Your task to perform on an android device: What's on my calendar tomorrow? Image 0: 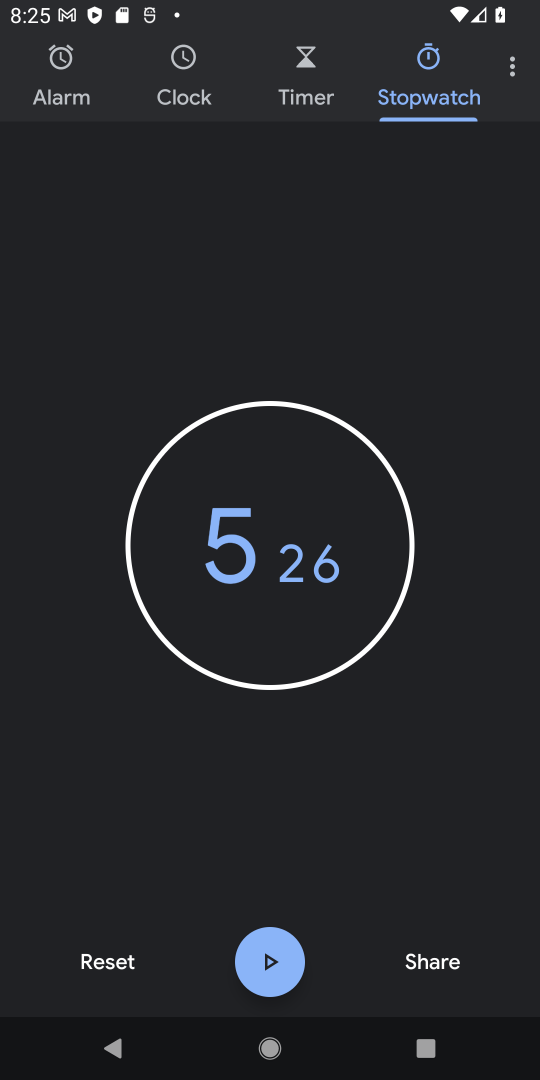
Step 0: press back button
Your task to perform on an android device: What's on my calendar tomorrow? Image 1: 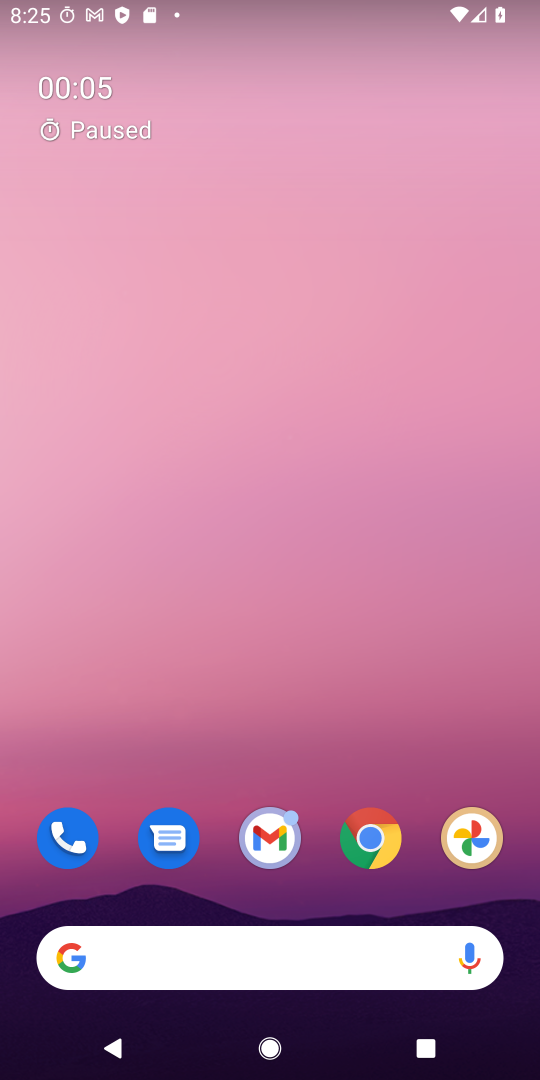
Step 1: click (209, 8)
Your task to perform on an android device: What's on my calendar tomorrow? Image 2: 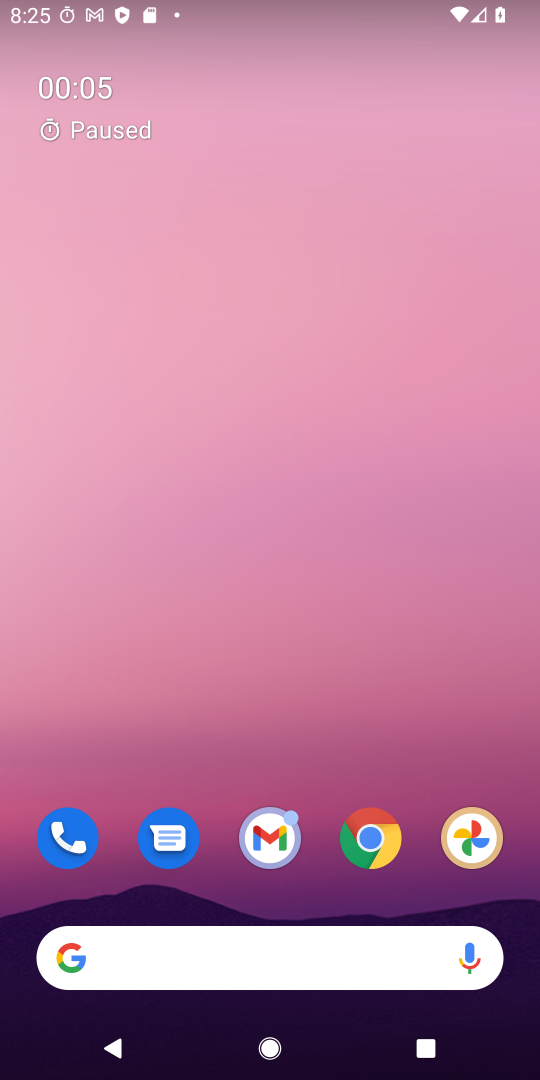
Step 2: drag from (219, 655) to (293, 3)
Your task to perform on an android device: What's on my calendar tomorrow? Image 3: 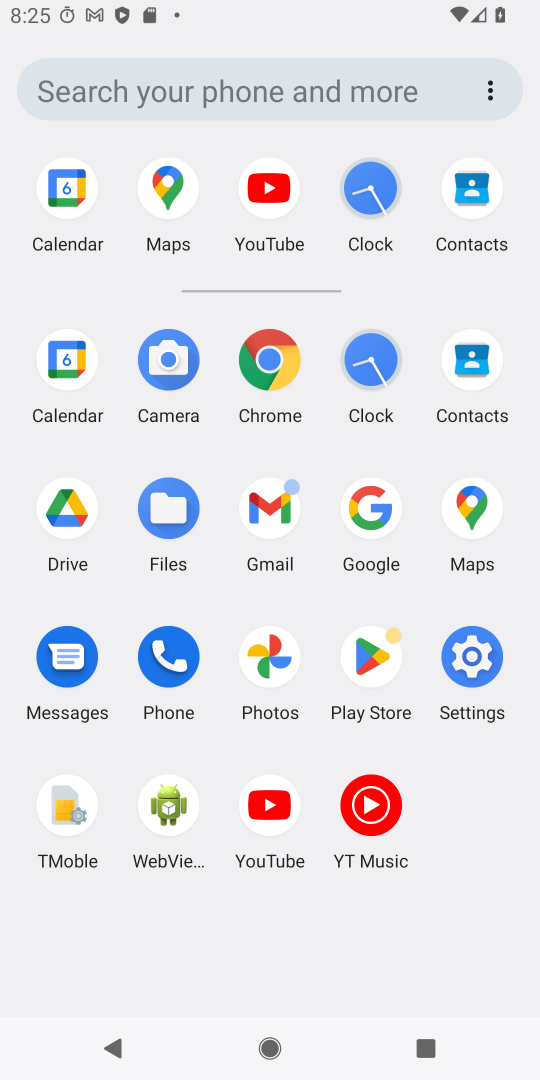
Step 3: click (49, 411)
Your task to perform on an android device: What's on my calendar tomorrow? Image 4: 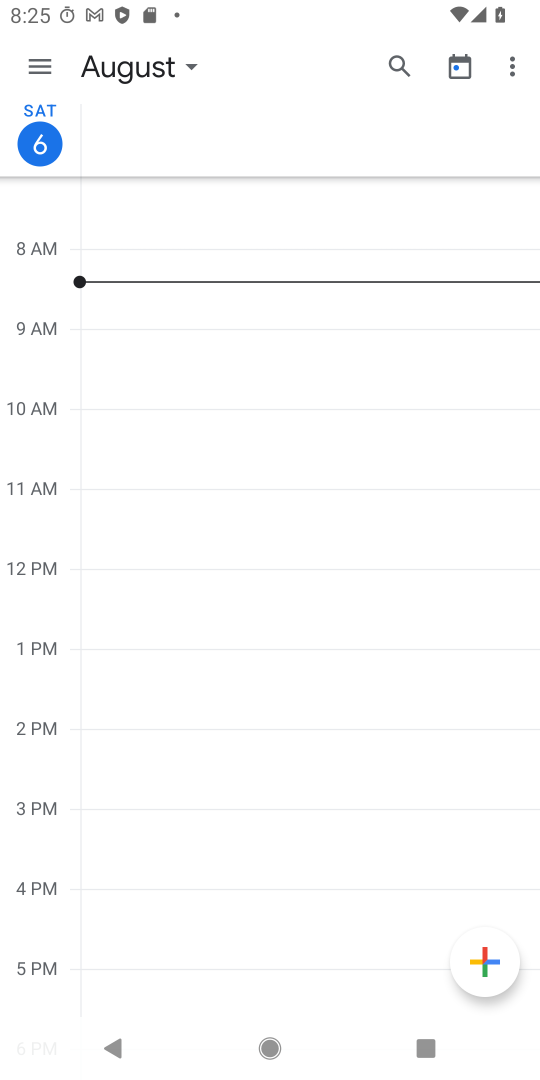
Step 4: click (148, 60)
Your task to perform on an android device: What's on my calendar tomorrow? Image 5: 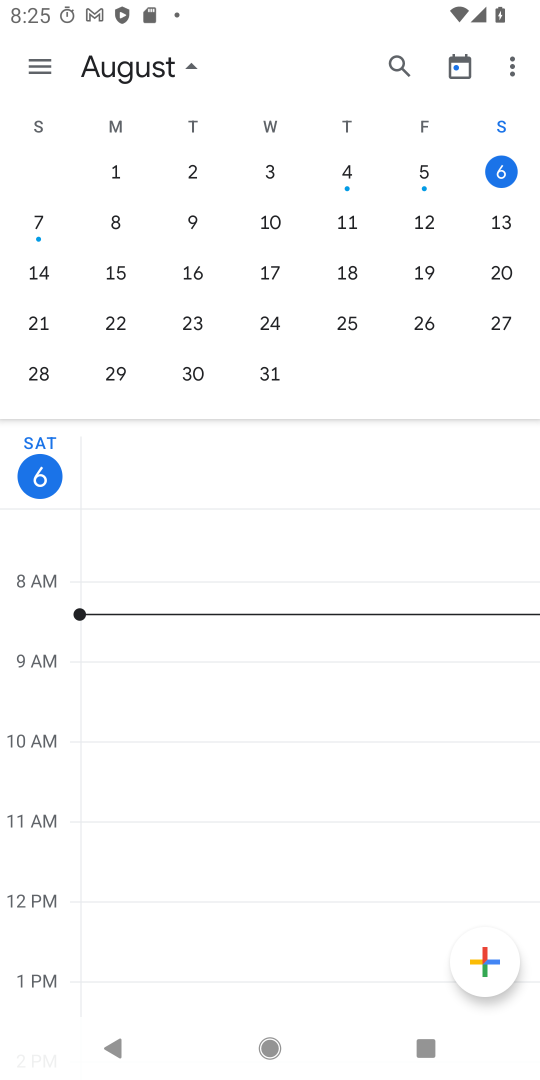
Step 5: click (40, 217)
Your task to perform on an android device: What's on my calendar tomorrow? Image 6: 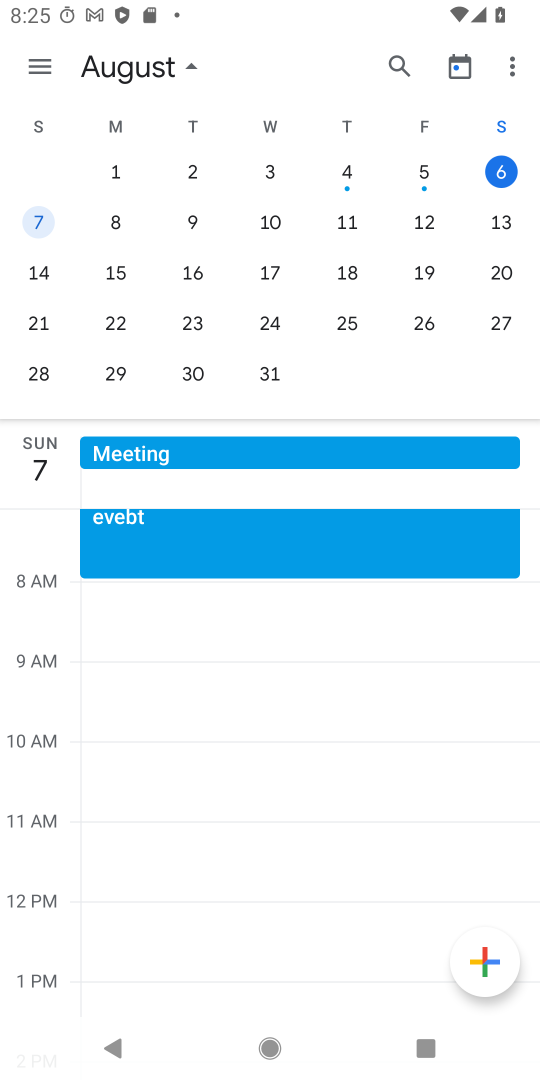
Step 6: task complete